Your task to perform on an android device: Open Chrome and go to the settings page Image 0: 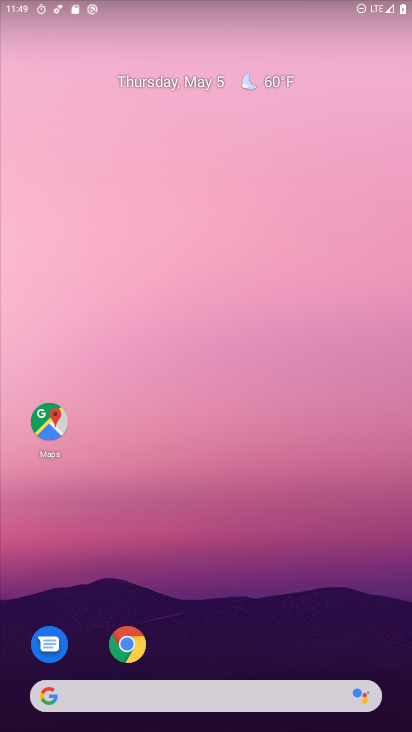
Step 0: drag from (377, 609) to (393, 32)
Your task to perform on an android device: Open Chrome and go to the settings page Image 1: 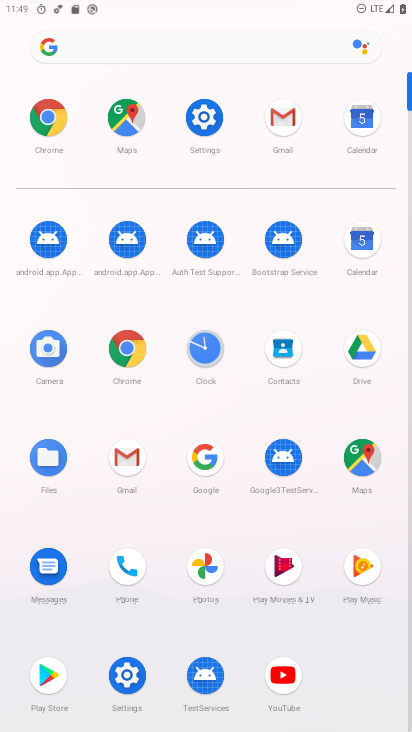
Step 1: click (123, 355)
Your task to perform on an android device: Open Chrome and go to the settings page Image 2: 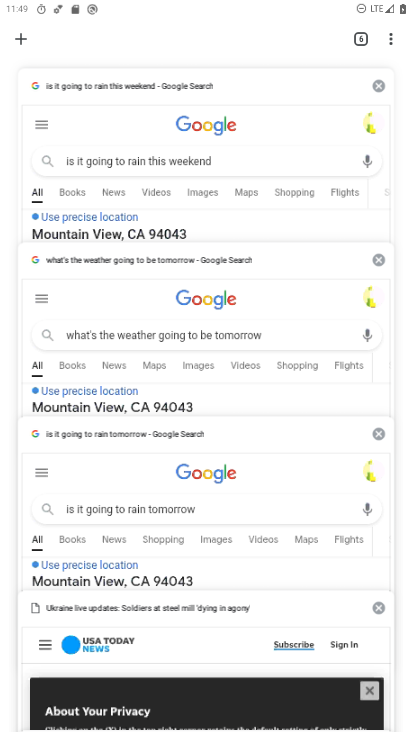
Step 2: task complete